Your task to perform on an android device: What's on my calendar today? Image 0: 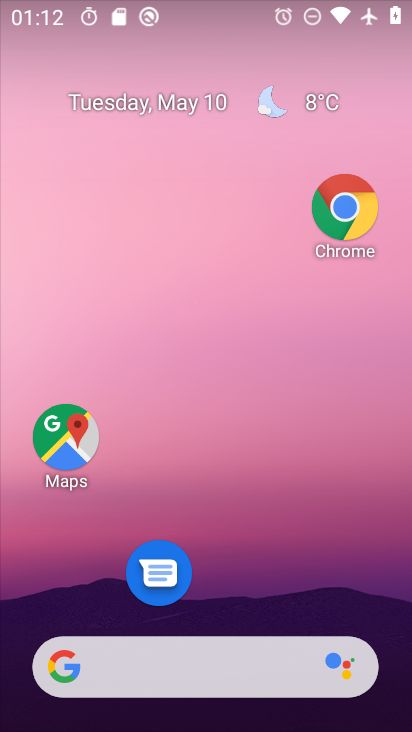
Step 0: drag from (309, 586) to (272, 151)
Your task to perform on an android device: What's on my calendar today? Image 1: 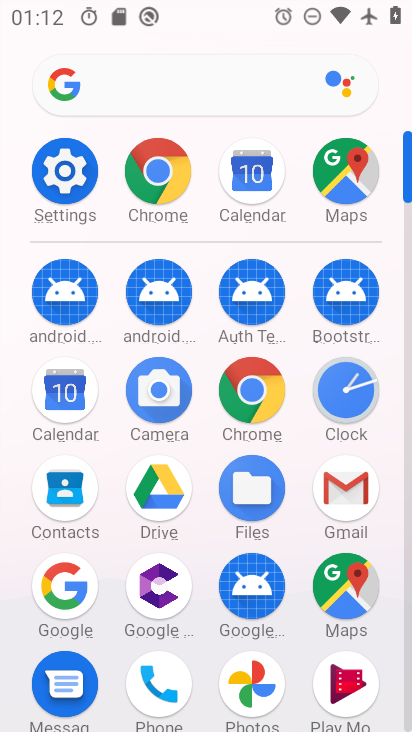
Step 1: click (60, 382)
Your task to perform on an android device: What's on my calendar today? Image 2: 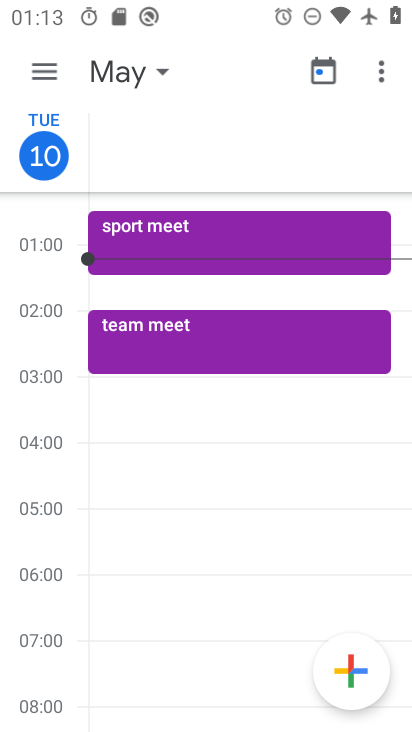
Step 2: task complete